Your task to perform on an android device: check storage Image 0: 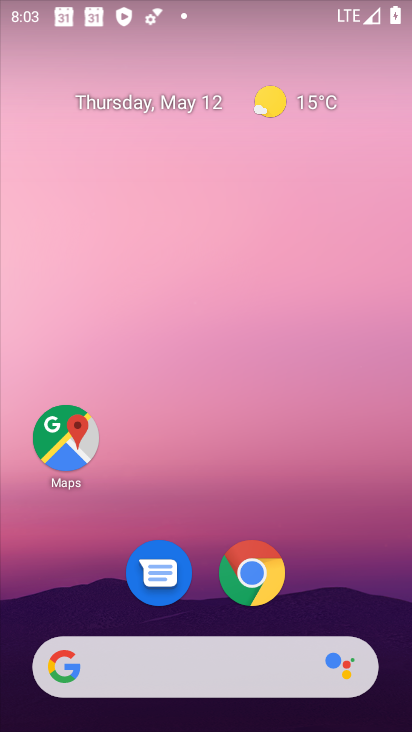
Step 0: drag from (350, 574) to (104, 33)
Your task to perform on an android device: check storage Image 1: 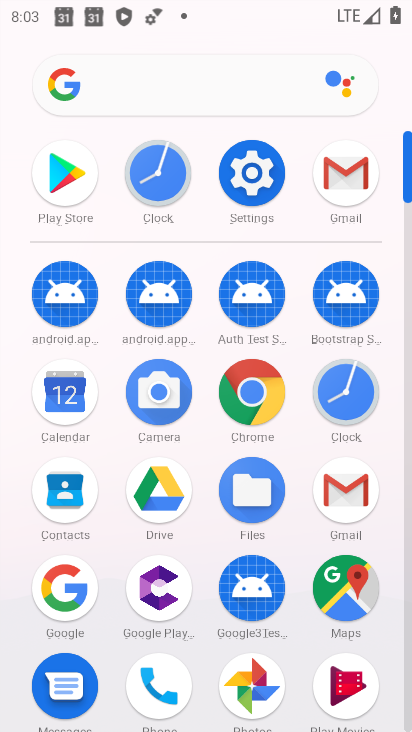
Step 1: click (250, 174)
Your task to perform on an android device: check storage Image 2: 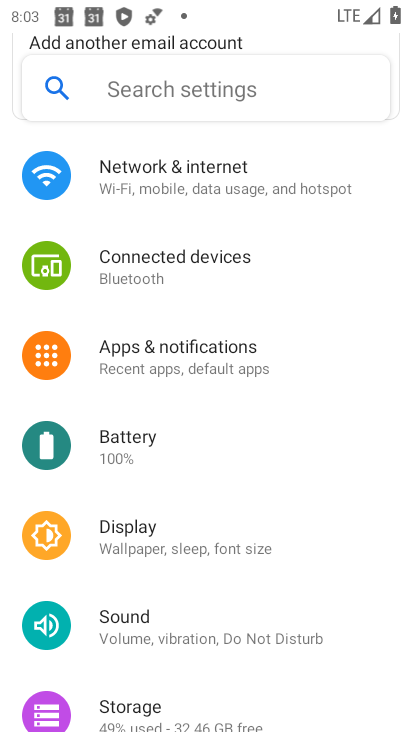
Step 2: click (132, 700)
Your task to perform on an android device: check storage Image 3: 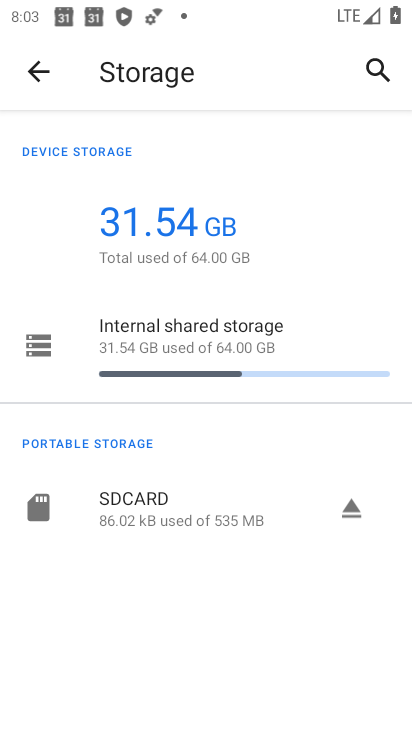
Step 3: task complete